Your task to perform on an android device: turn on the 24-hour format for clock Image 0: 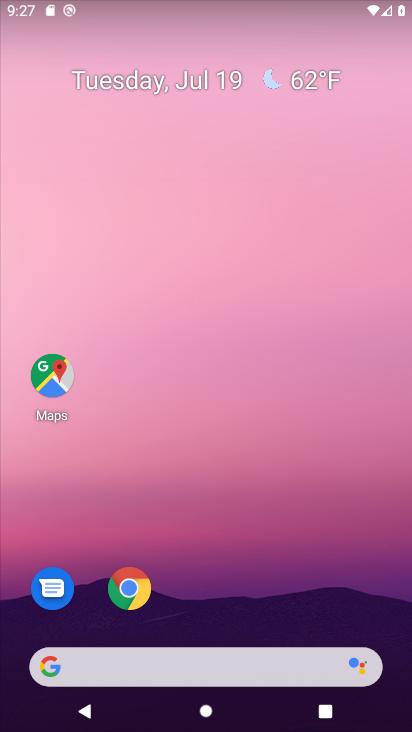
Step 0: drag from (184, 462) to (182, 163)
Your task to perform on an android device: turn on the 24-hour format for clock Image 1: 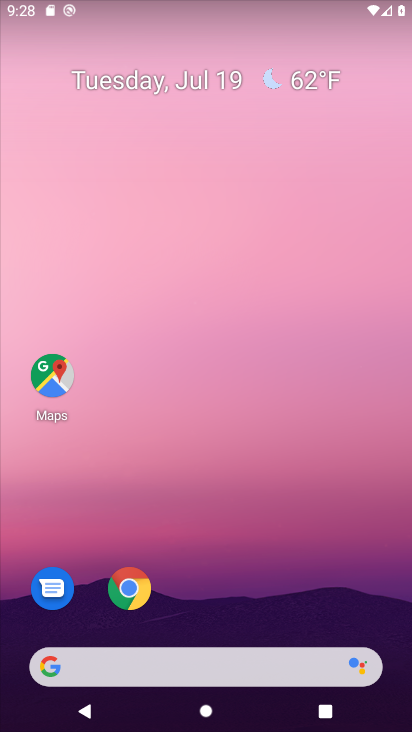
Step 1: drag from (177, 513) to (164, 9)
Your task to perform on an android device: turn on the 24-hour format for clock Image 2: 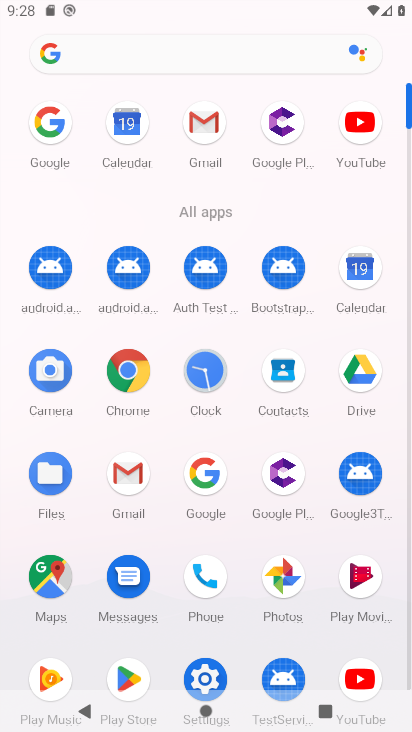
Step 2: click (201, 680)
Your task to perform on an android device: turn on the 24-hour format for clock Image 3: 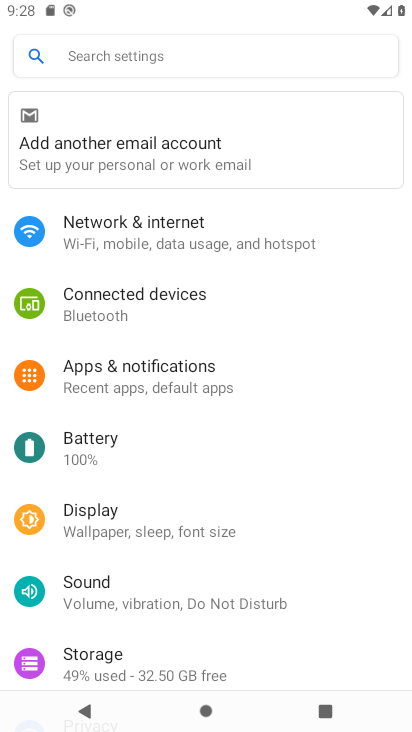
Step 3: click (107, 225)
Your task to perform on an android device: turn on the 24-hour format for clock Image 4: 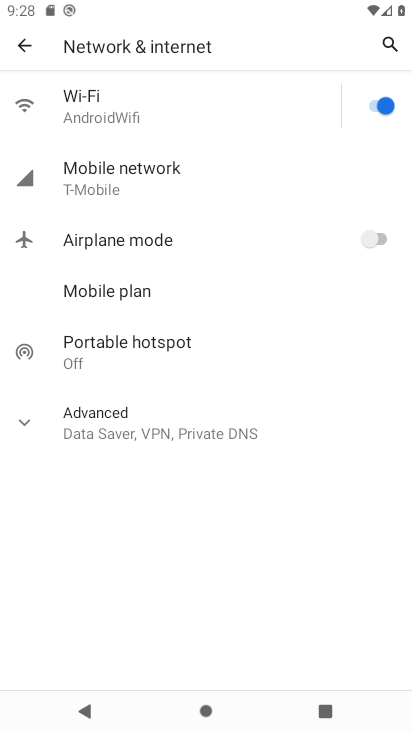
Step 4: task complete